Your task to perform on an android device: turn on notifications settings in the gmail app Image 0: 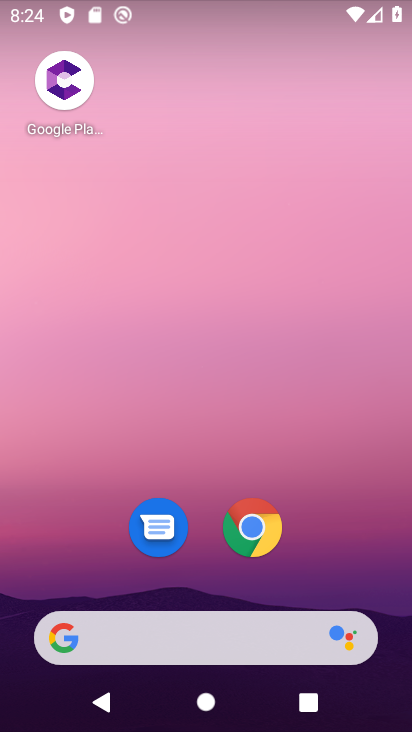
Step 0: drag from (352, 572) to (357, 154)
Your task to perform on an android device: turn on notifications settings in the gmail app Image 1: 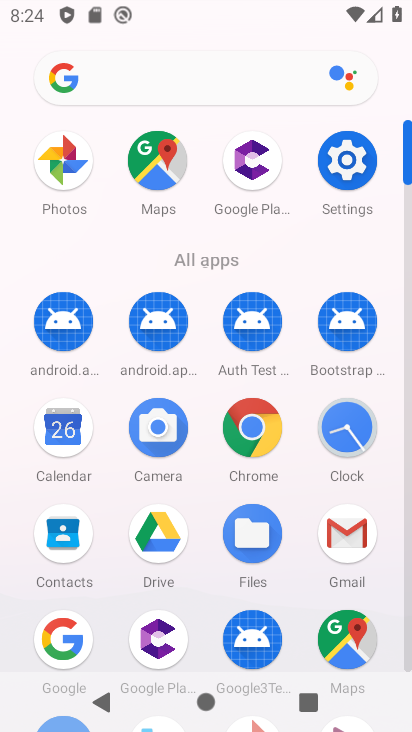
Step 1: click (363, 553)
Your task to perform on an android device: turn on notifications settings in the gmail app Image 2: 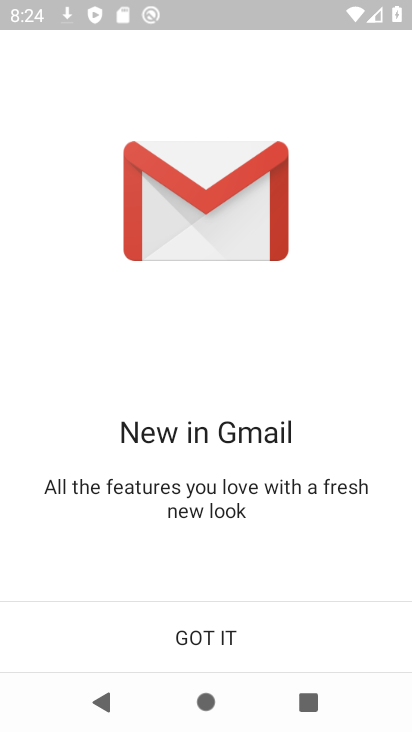
Step 2: click (214, 647)
Your task to perform on an android device: turn on notifications settings in the gmail app Image 3: 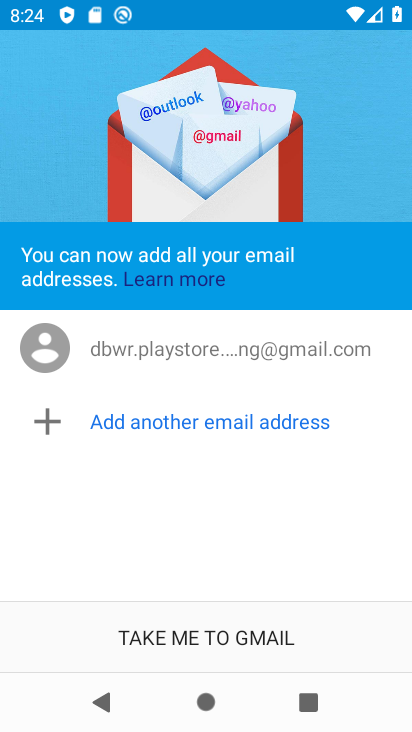
Step 3: click (219, 637)
Your task to perform on an android device: turn on notifications settings in the gmail app Image 4: 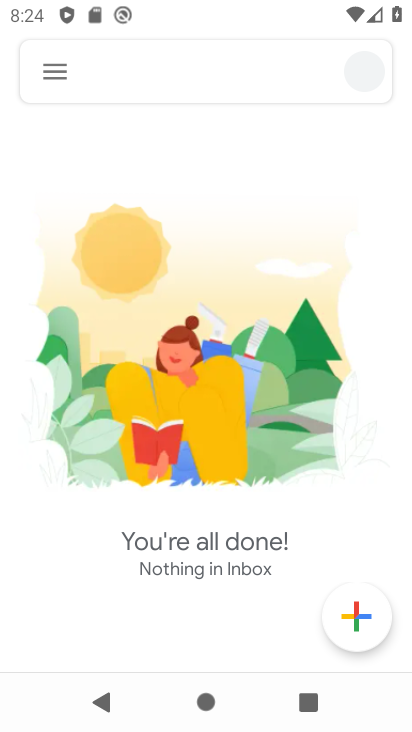
Step 4: click (67, 82)
Your task to perform on an android device: turn on notifications settings in the gmail app Image 5: 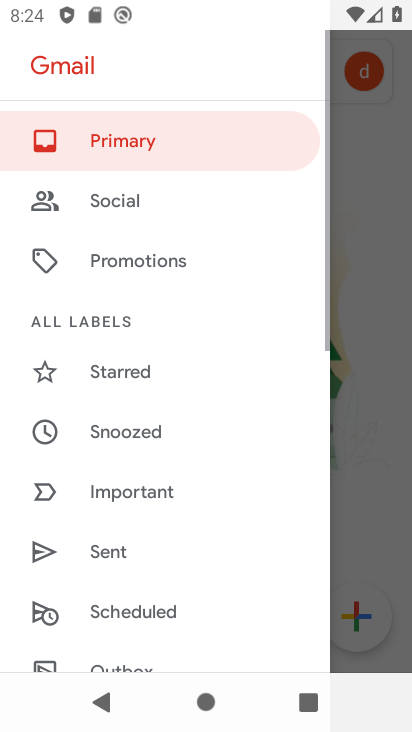
Step 5: drag from (169, 608) to (221, 102)
Your task to perform on an android device: turn on notifications settings in the gmail app Image 6: 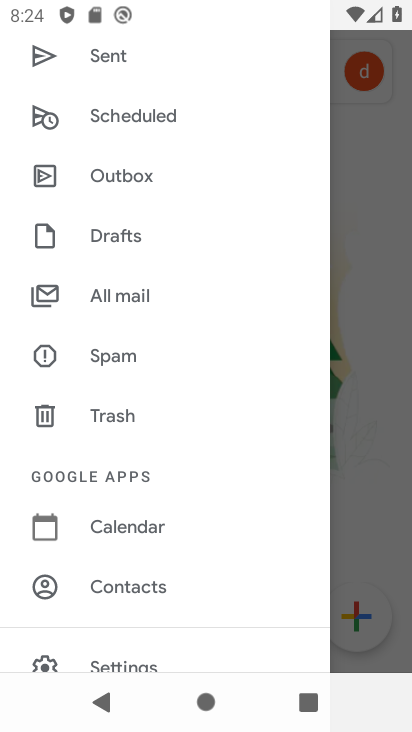
Step 6: click (131, 661)
Your task to perform on an android device: turn on notifications settings in the gmail app Image 7: 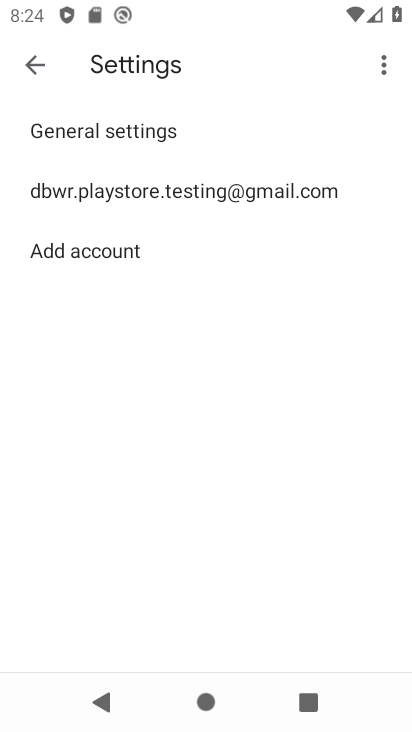
Step 7: click (108, 192)
Your task to perform on an android device: turn on notifications settings in the gmail app Image 8: 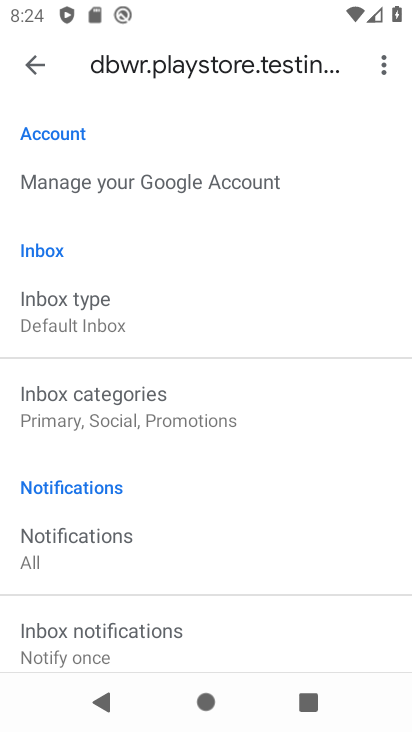
Step 8: drag from (194, 604) to (310, 250)
Your task to perform on an android device: turn on notifications settings in the gmail app Image 9: 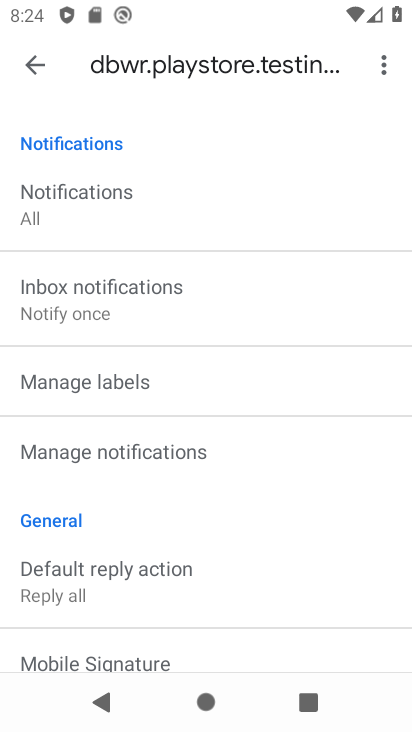
Step 9: click (154, 458)
Your task to perform on an android device: turn on notifications settings in the gmail app Image 10: 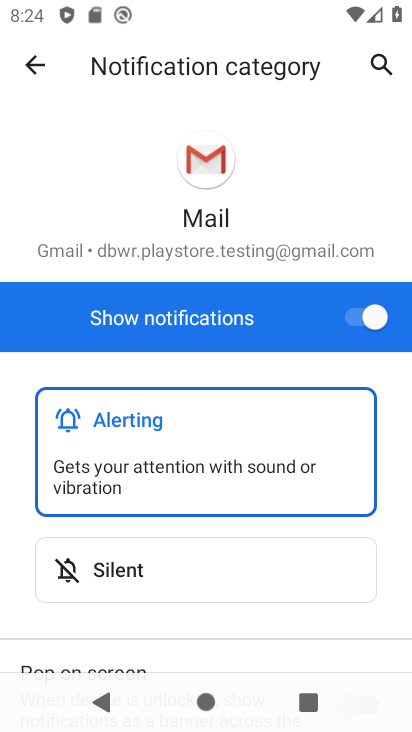
Step 10: task complete